Your task to perform on an android device: Show me popular videos on Youtube Image 0: 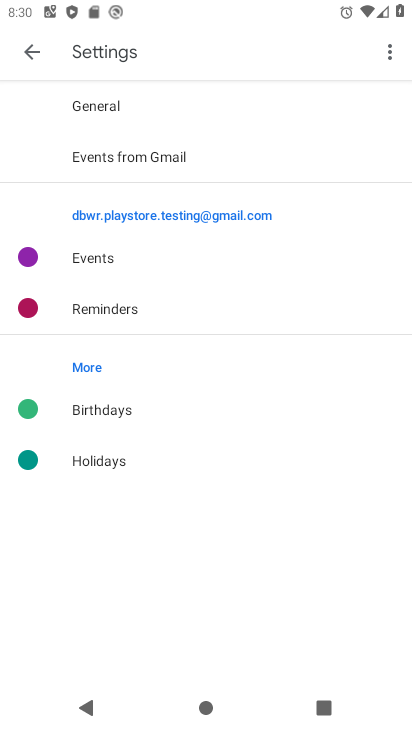
Step 0: press home button
Your task to perform on an android device: Show me popular videos on Youtube Image 1: 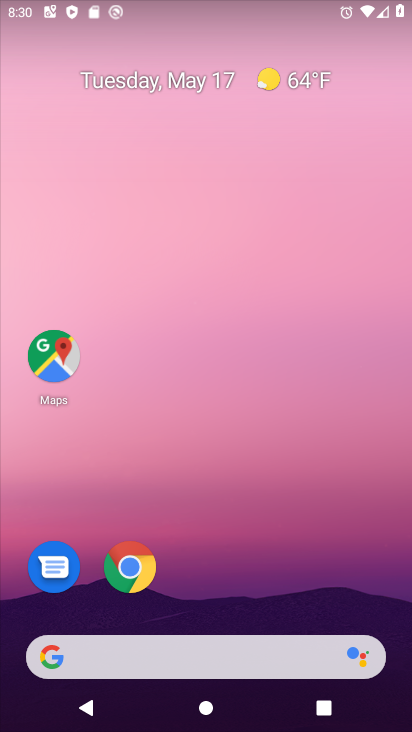
Step 1: drag from (386, 615) to (286, 94)
Your task to perform on an android device: Show me popular videos on Youtube Image 2: 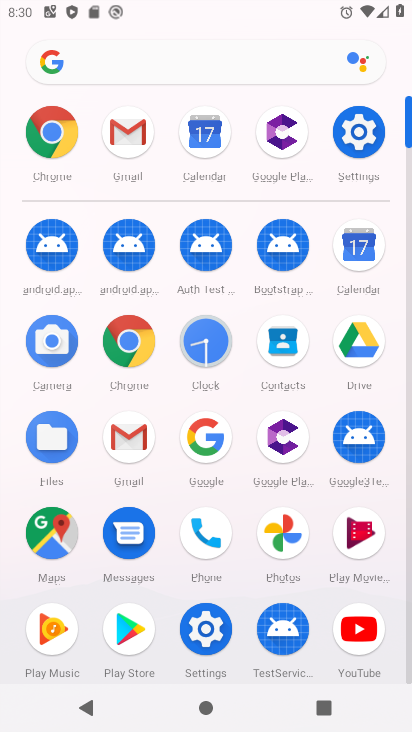
Step 2: drag from (324, 648) to (326, 408)
Your task to perform on an android device: Show me popular videos on Youtube Image 3: 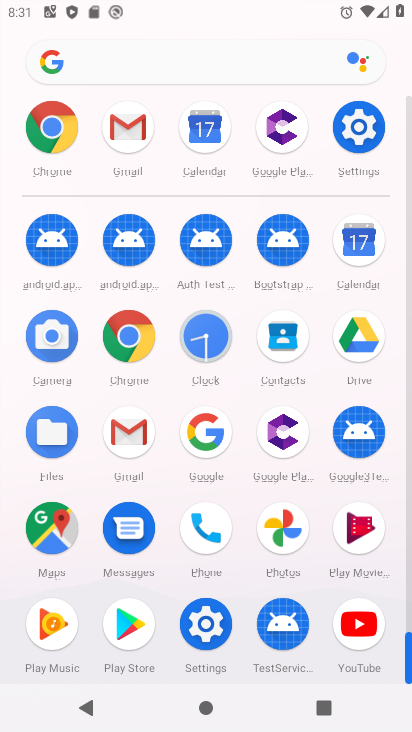
Step 3: click (344, 622)
Your task to perform on an android device: Show me popular videos on Youtube Image 4: 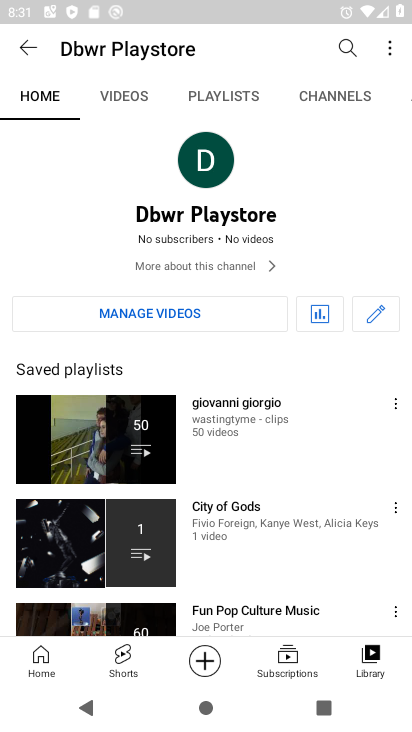
Step 4: click (45, 661)
Your task to perform on an android device: Show me popular videos on Youtube Image 5: 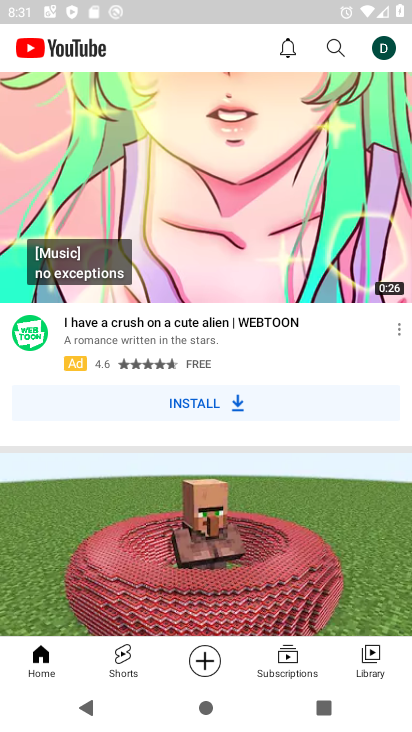
Step 5: task complete